Your task to perform on an android device: Open Google Maps and go to "Timeline" Image 0: 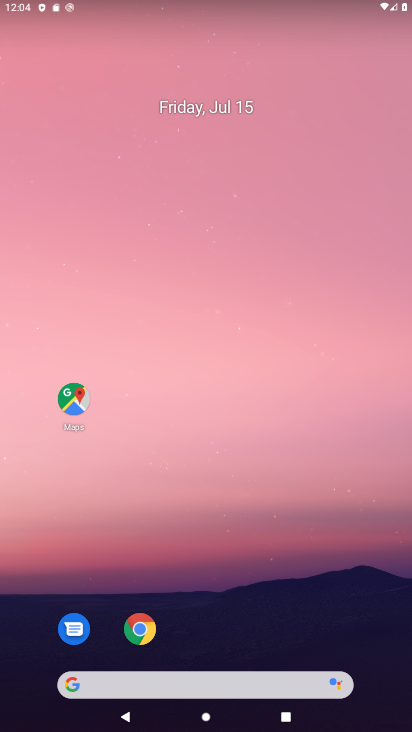
Step 0: drag from (276, 584) to (138, 0)
Your task to perform on an android device: Open Google Maps and go to "Timeline" Image 1: 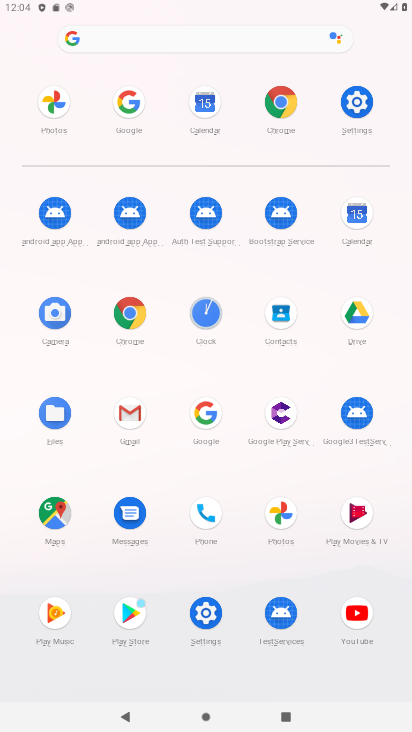
Step 1: click (48, 510)
Your task to perform on an android device: Open Google Maps and go to "Timeline" Image 2: 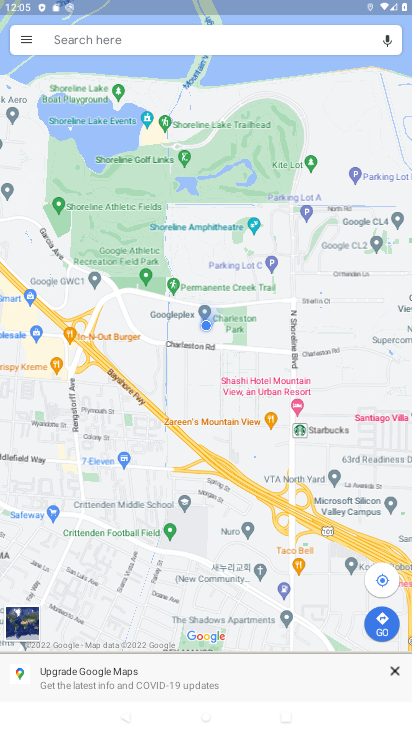
Step 2: click (22, 30)
Your task to perform on an android device: Open Google Maps and go to "Timeline" Image 3: 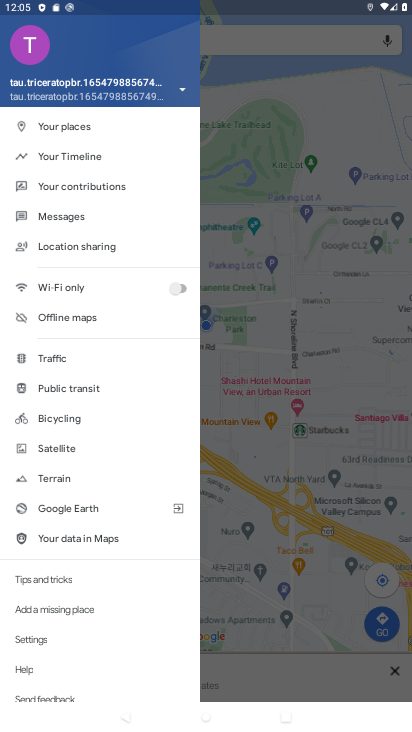
Step 3: click (57, 163)
Your task to perform on an android device: Open Google Maps and go to "Timeline" Image 4: 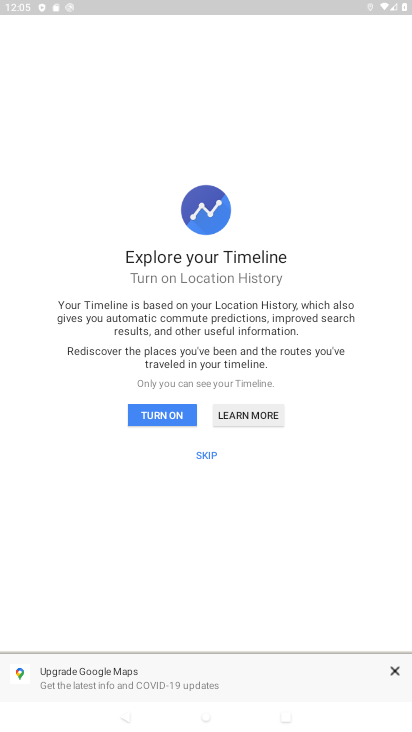
Step 4: click (179, 419)
Your task to perform on an android device: Open Google Maps and go to "Timeline" Image 5: 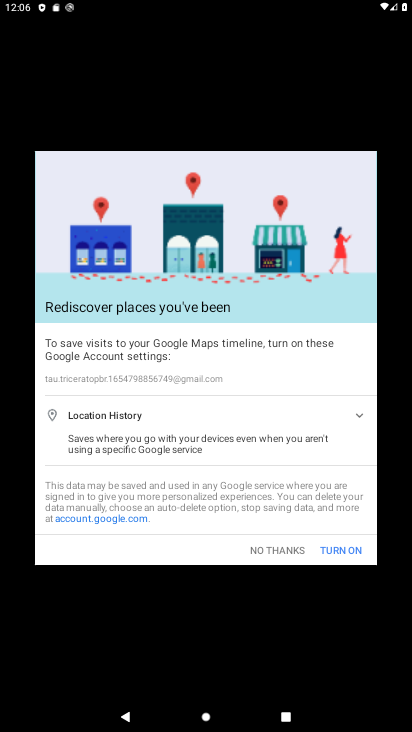
Step 5: click (281, 545)
Your task to perform on an android device: Open Google Maps and go to "Timeline" Image 6: 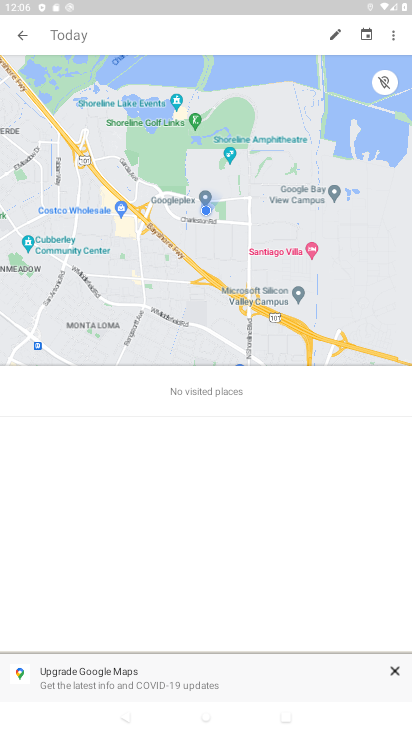
Step 6: task complete